Your task to perform on an android device: toggle improve location accuracy Image 0: 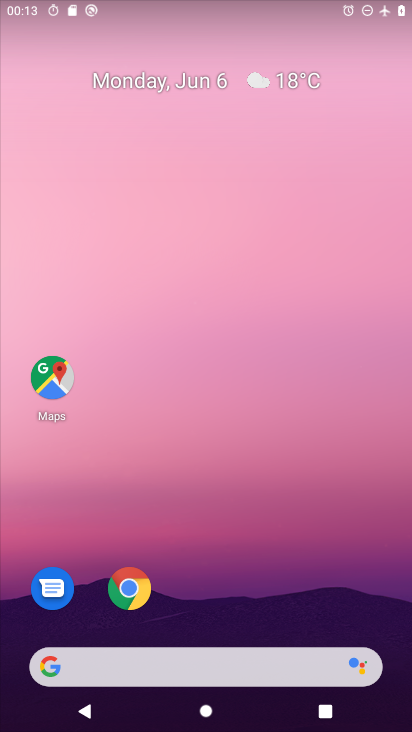
Step 0: drag from (350, 594) to (354, 152)
Your task to perform on an android device: toggle improve location accuracy Image 1: 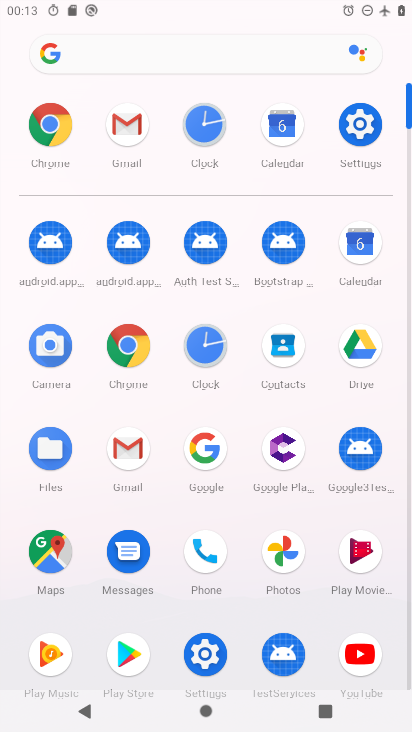
Step 1: click (367, 123)
Your task to perform on an android device: toggle improve location accuracy Image 2: 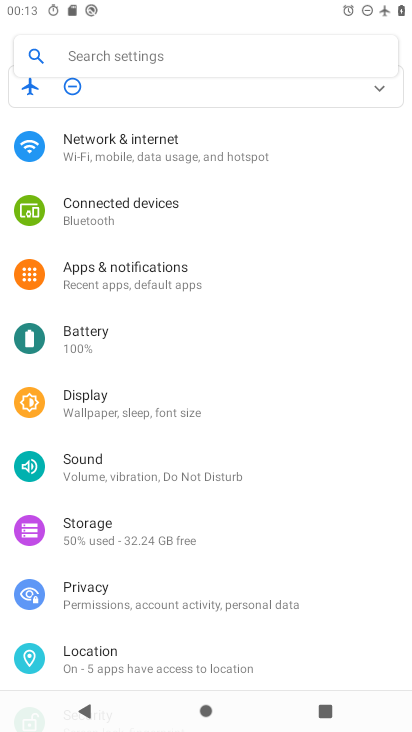
Step 2: drag from (333, 423) to (344, 326)
Your task to perform on an android device: toggle improve location accuracy Image 3: 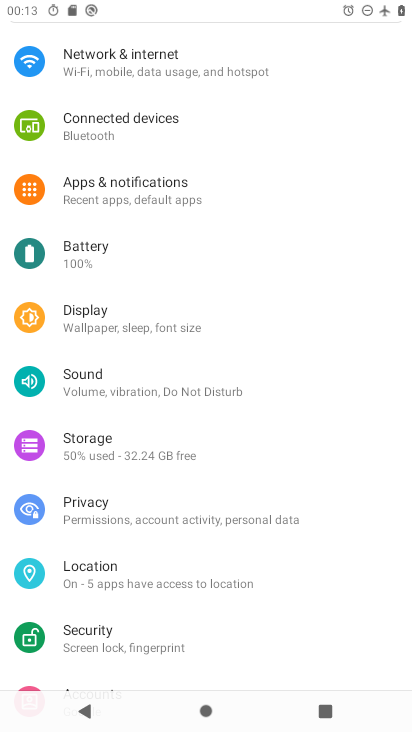
Step 3: drag from (351, 479) to (364, 369)
Your task to perform on an android device: toggle improve location accuracy Image 4: 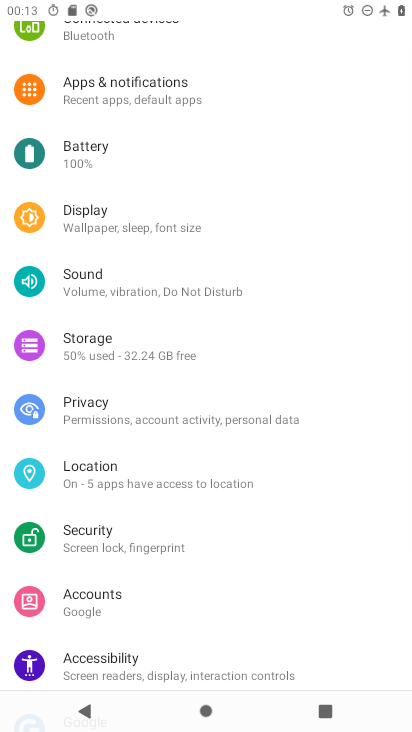
Step 4: drag from (342, 497) to (351, 392)
Your task to perform on an android device: toggle improve location accuracy Image 5: 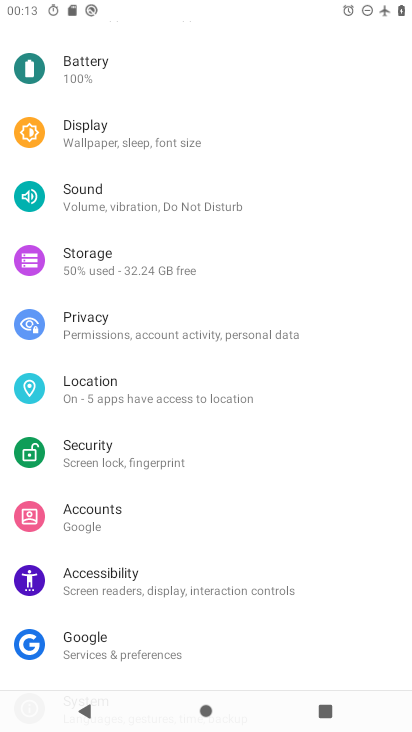
Step 5: drag from (342, 504) to (347, 371)
Your task to perform on an android device: toggle improve location accuracy Image 6: 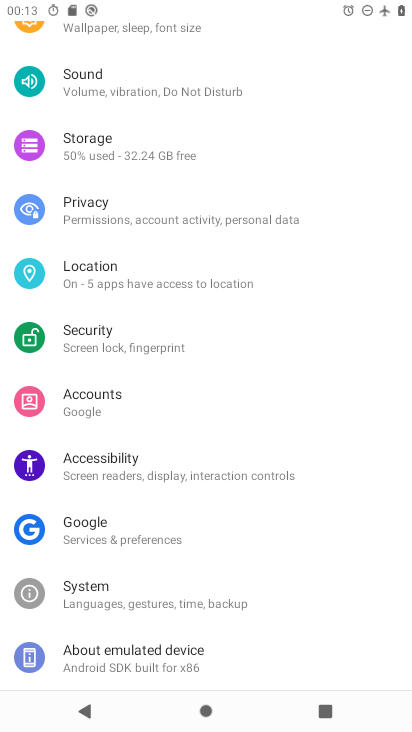
Step 6: drag from (362, 492) to (362, 335)
Your task to perform on an android device: toggle improve location accuracy Image 7: 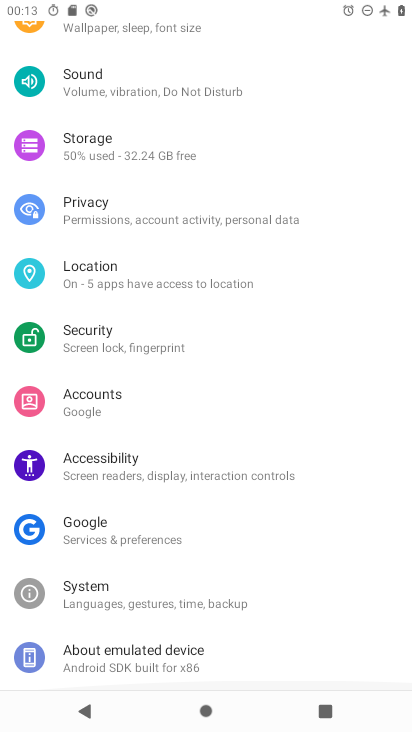
Step 7: click (258, 274)
Your task to perform on an android device: toggle improve location accuracy Image 8: 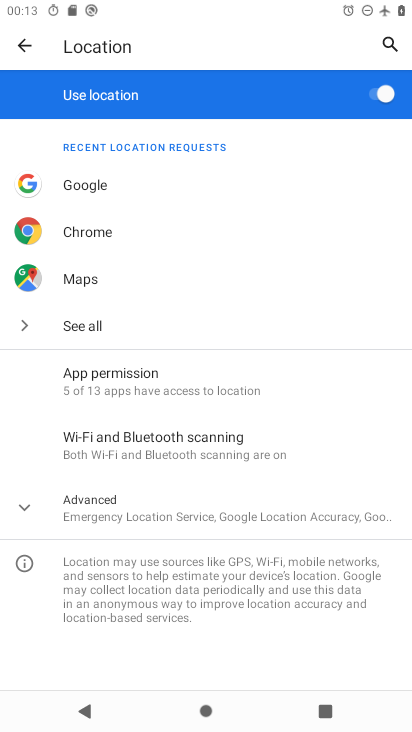
Step 8: click (279, 509)
Your task to perform on an android device: toggle improve location accuracy Image 9: 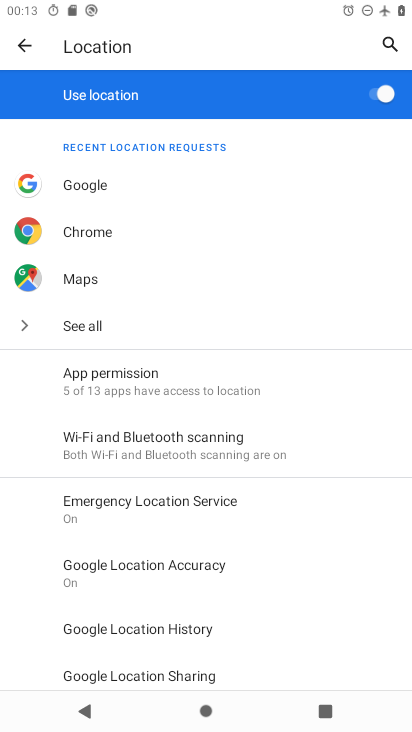
Step 9: drag from (317, 475) to (337, 358)
Your task to perform on an android device: toggle improve location accuracy Image 10: 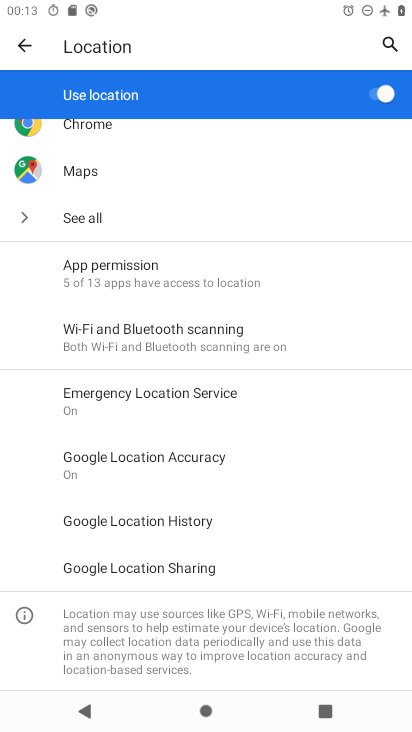
Step 10: click (218, 458)
Your task to perform on an android device: toggle improve location accuracy Image 11: 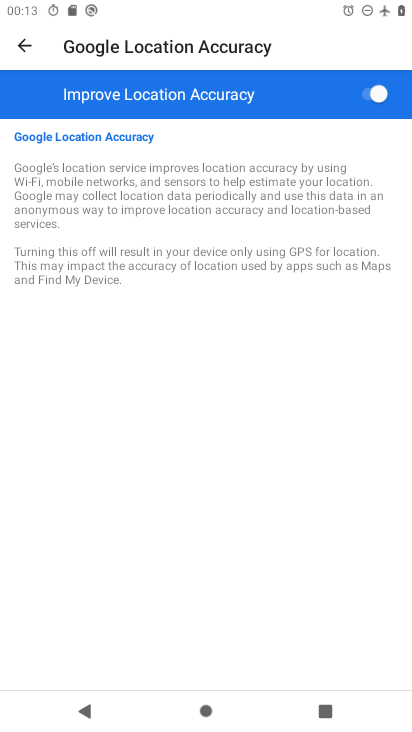
Step 11: click (375, 94)
Your task to perform on an android device: toggle improve location accuracy Image 12: 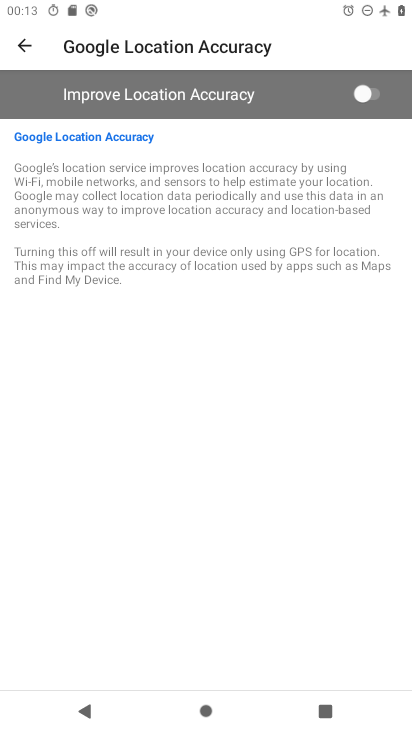
Step 12: task complete